Your task to perform on an android device: find photos in the google photos app Image 0: 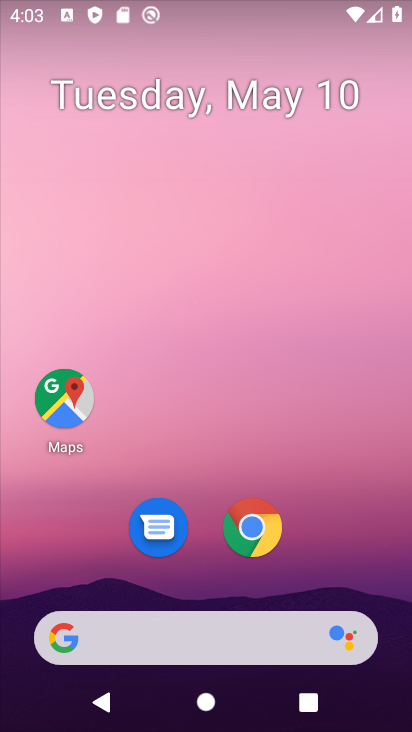
Step 0: click (189, 168)
Your task to perform on an android device: find photos in the google photos app Image 1: 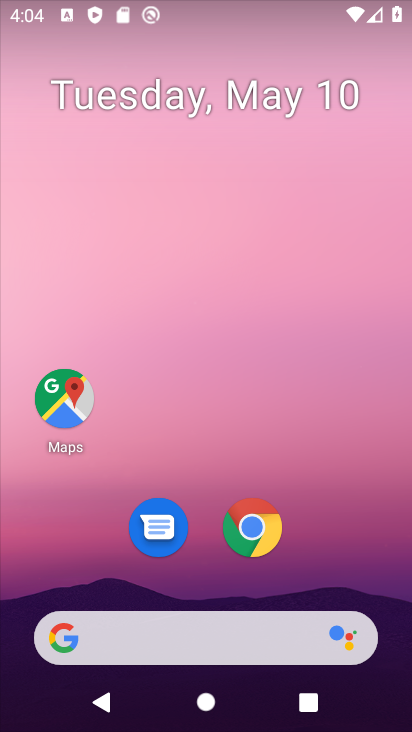
Step 1: drag from (285, 457) to (310, 4)
Your task to perform on an android device: find photos in the google photos app Image 2: 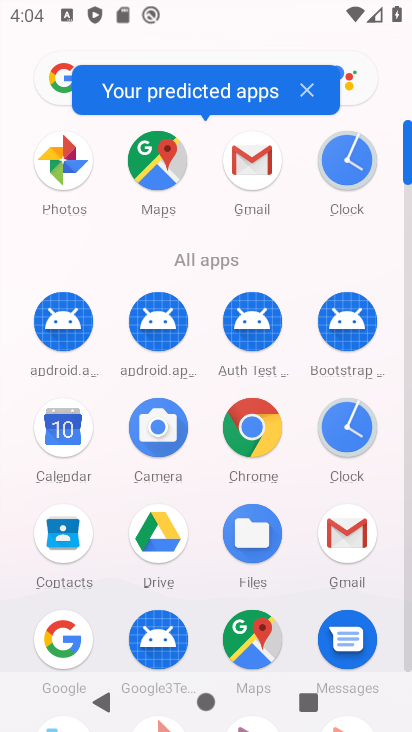
Step 2: click (74, 155)
Your task to perform on an android device: find photos in the google photos app Image 3: 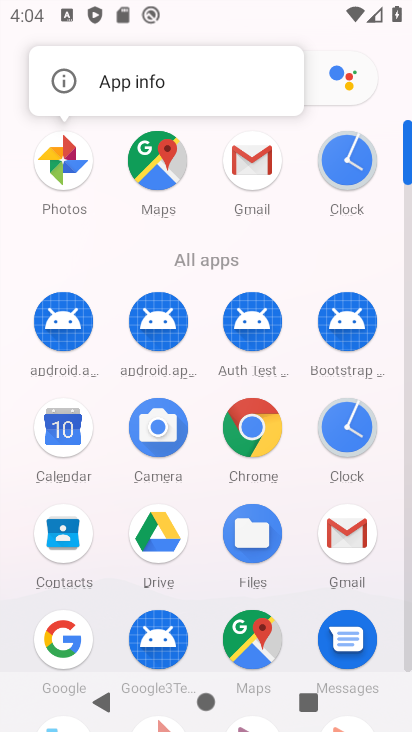
Step 3: click (67, 155)
Your task to perform on an android device: find photos in the google photos app Image 4: 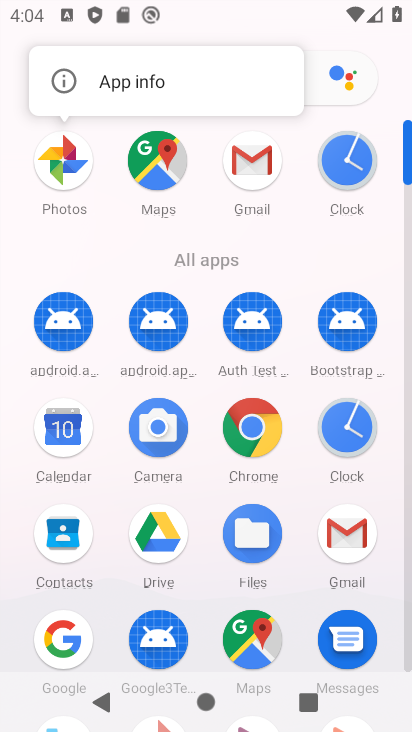
Step 4: click (67, 156)
Your task to perform on an android device: find photos in the google photos app Image 5: 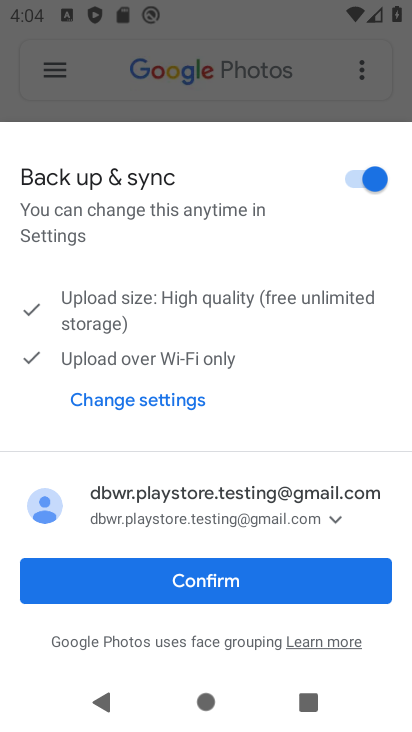
Step 5: click (295, 588)
Your task to perform on an android device: find photos in the google photos app Image 6: 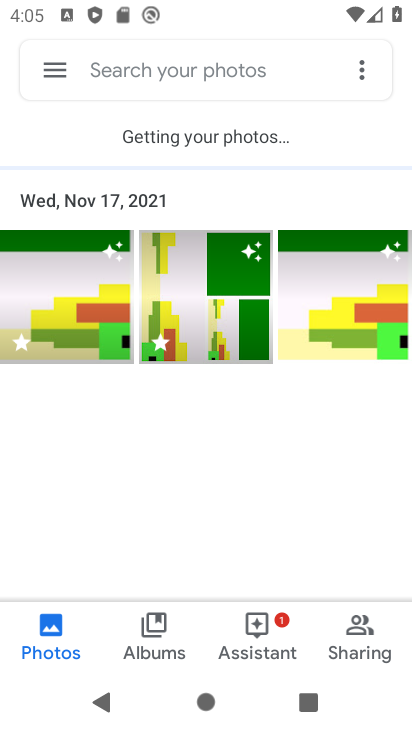
Step 6: click (90, 324)
Your task to perform on an android device: find photos in the google photos app Image 7: 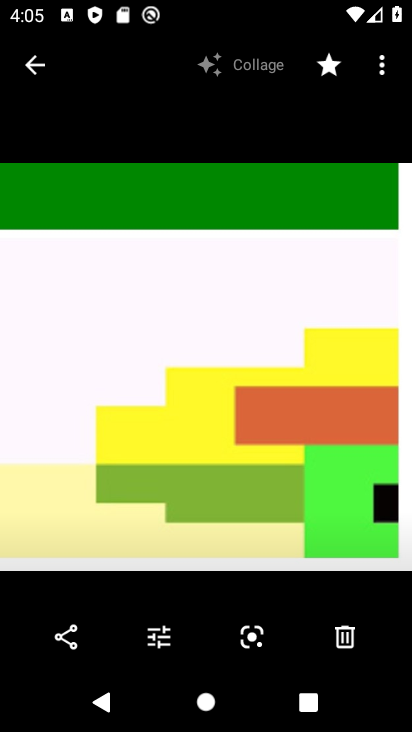
Step 7: task complete